Your task to perform on an android device: find photos in the google photos app Image 0: 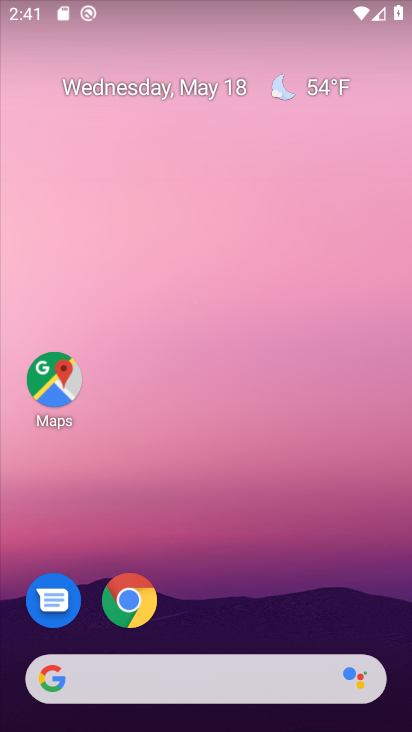
Step 0: drag from (199, 605) to (244, 143)
Your task to perform on an android device: find photos in the google photos app Image 1: 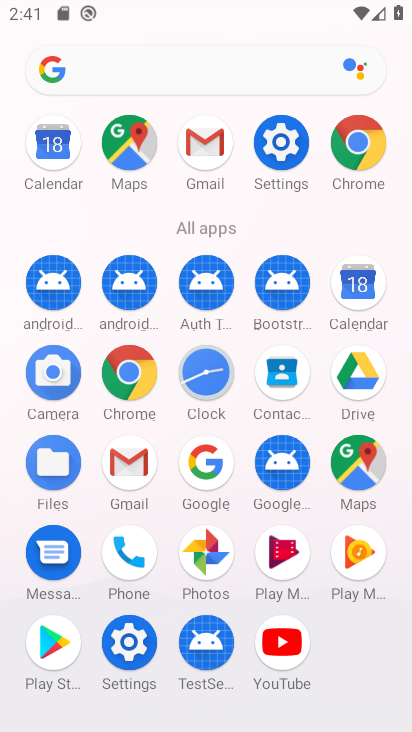
Step 1: click (205, 569)
Your task to perform on an android device: find photos in the google photos app Image 2: 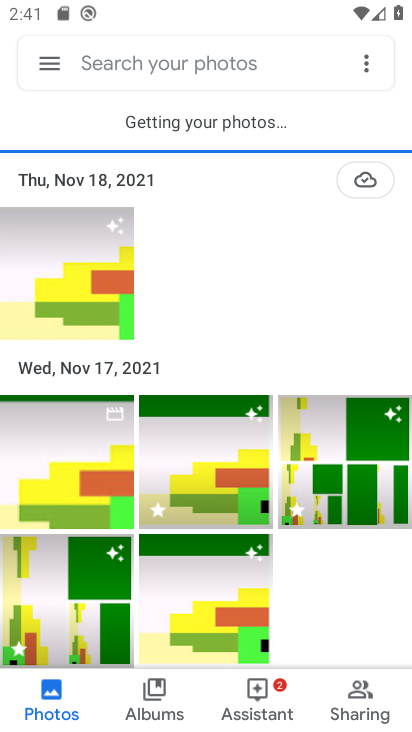
Step 2: click (94, 287)
Your task to perform on an android device: find photos in the google photos app Image 3: 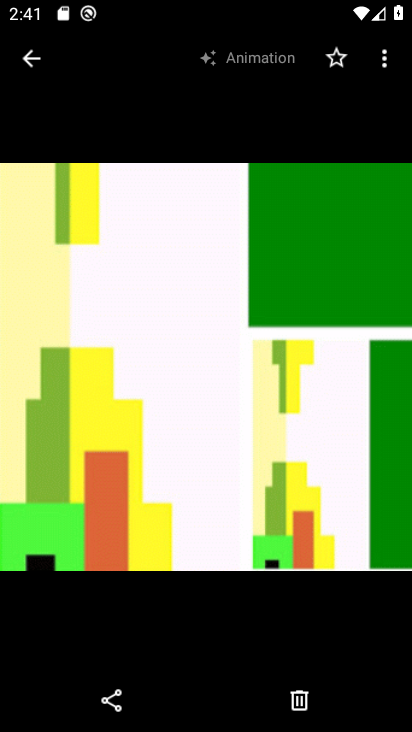
Step 3: task complete